Your task to perform on an android device: Set the phone to "Do not disturb". Image 0: 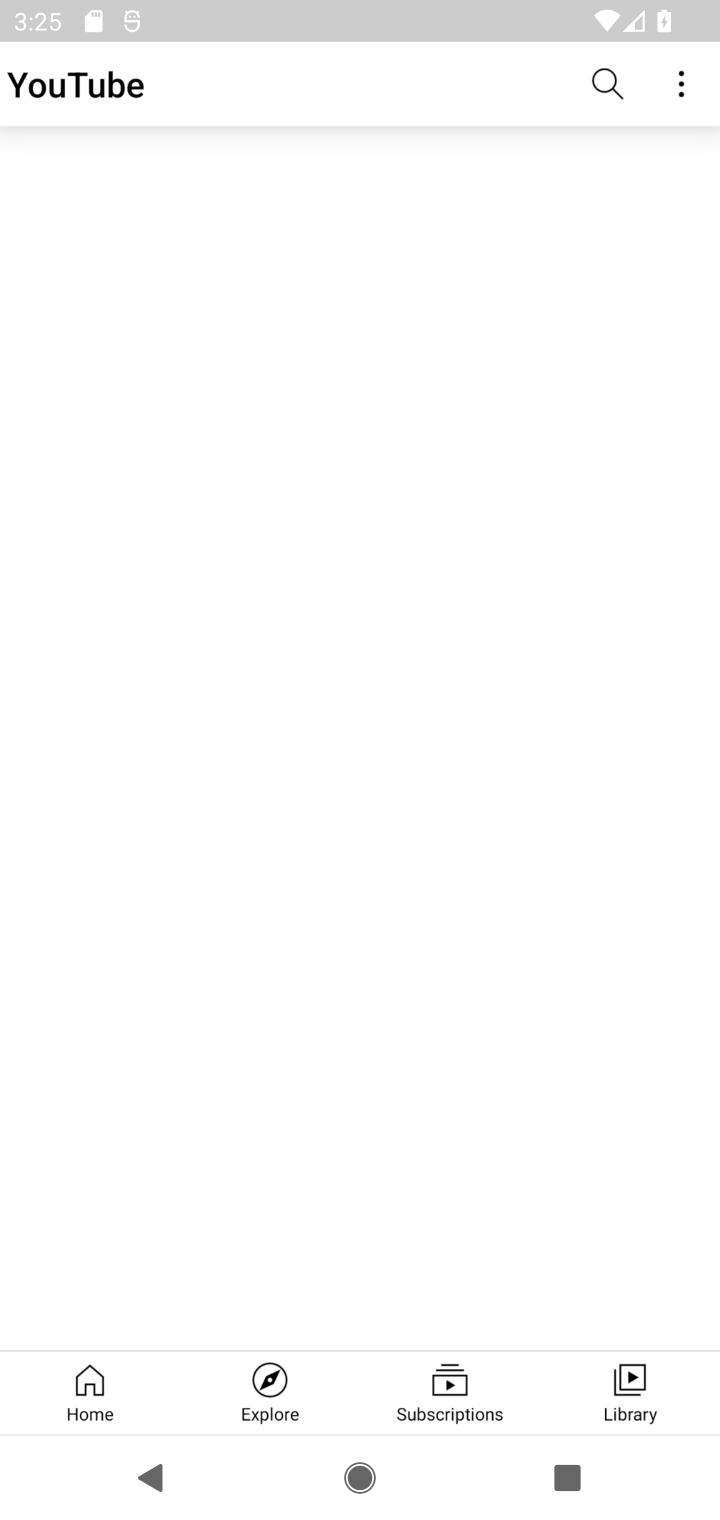
Step 0: press home button
Your task to perform on an android device: Set the phone to "Do not disturb". Image 1: 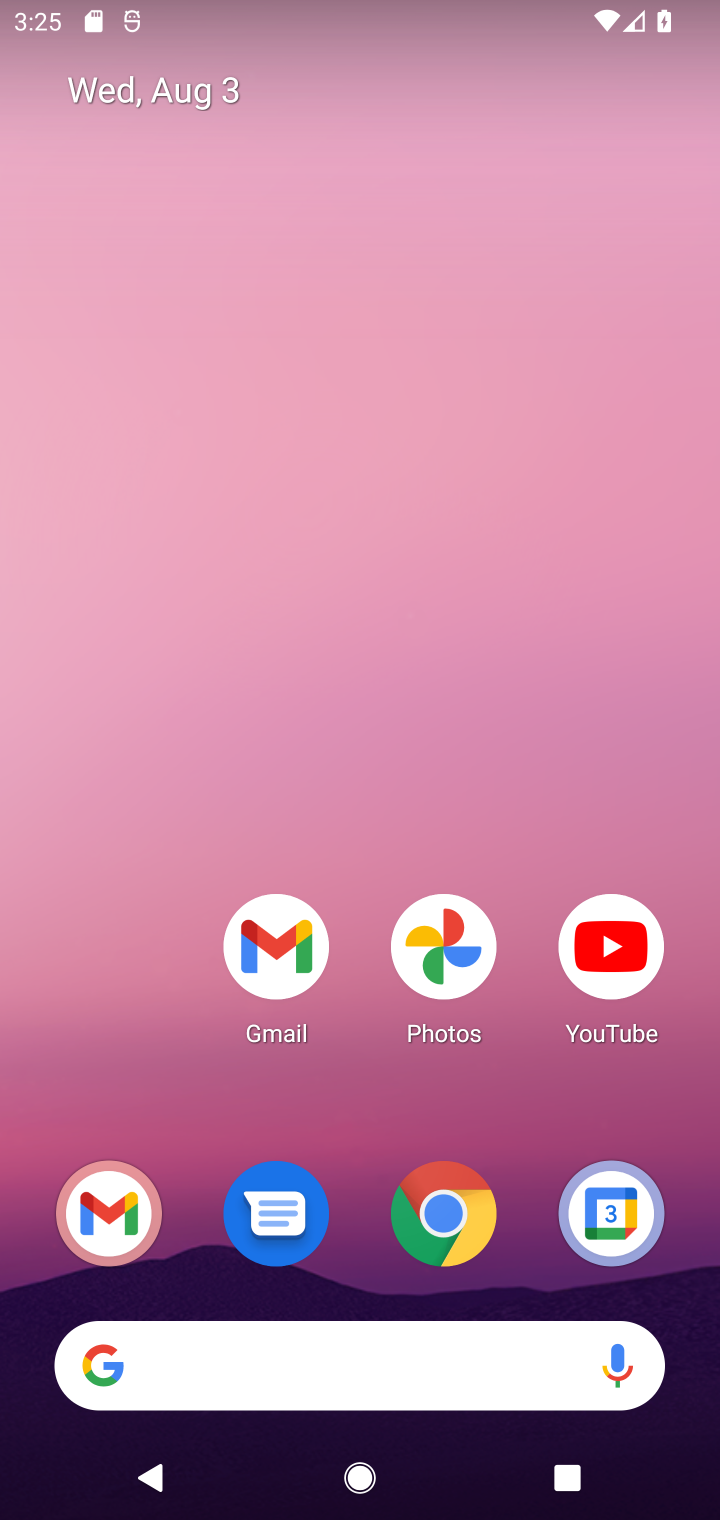
Step 1: drag from (351, 22) to (360, 1053)
Your task to perform on an android device: Set the phone to "Do not disturb". Image 2: 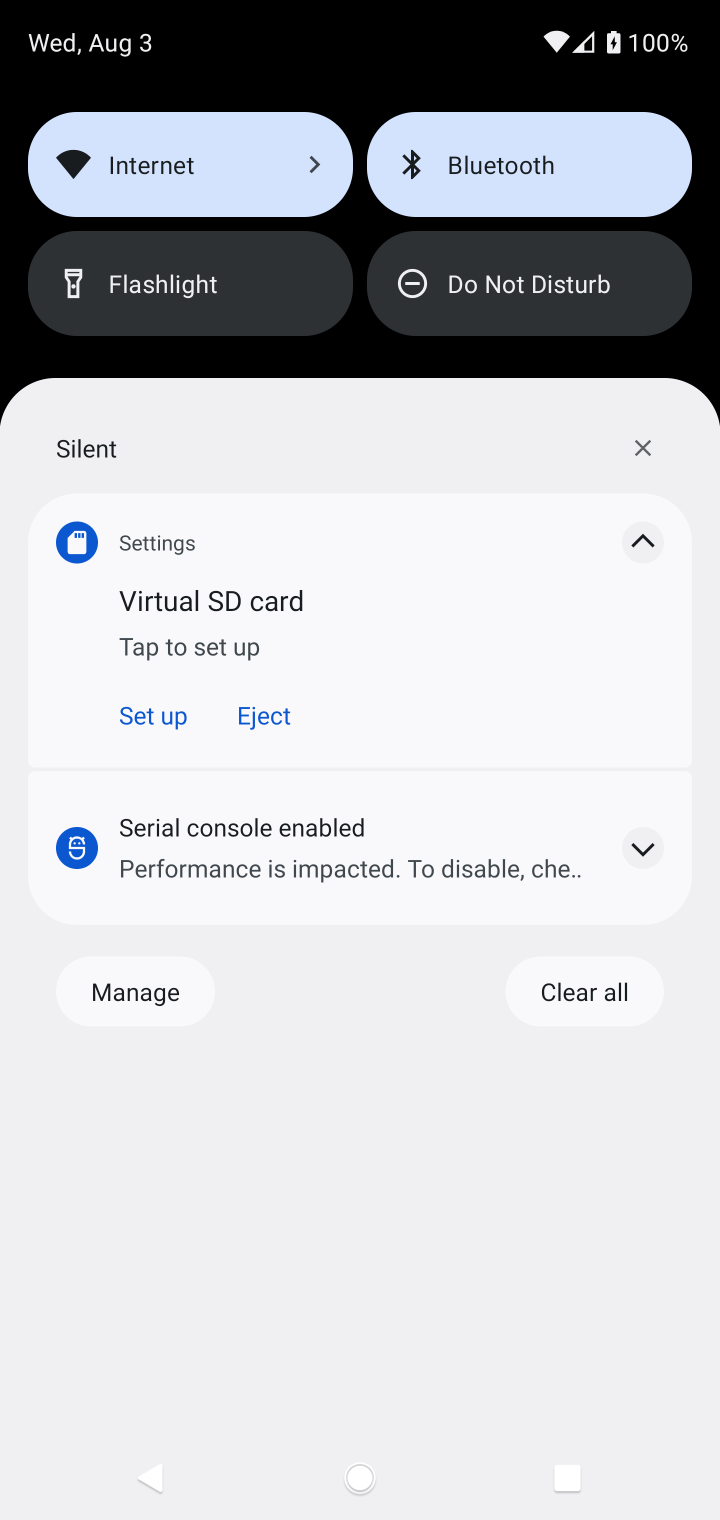
Step 2: click (538, 277)
Your task to perform on an android device: Set the phone to "Do not disturb". Image 3: 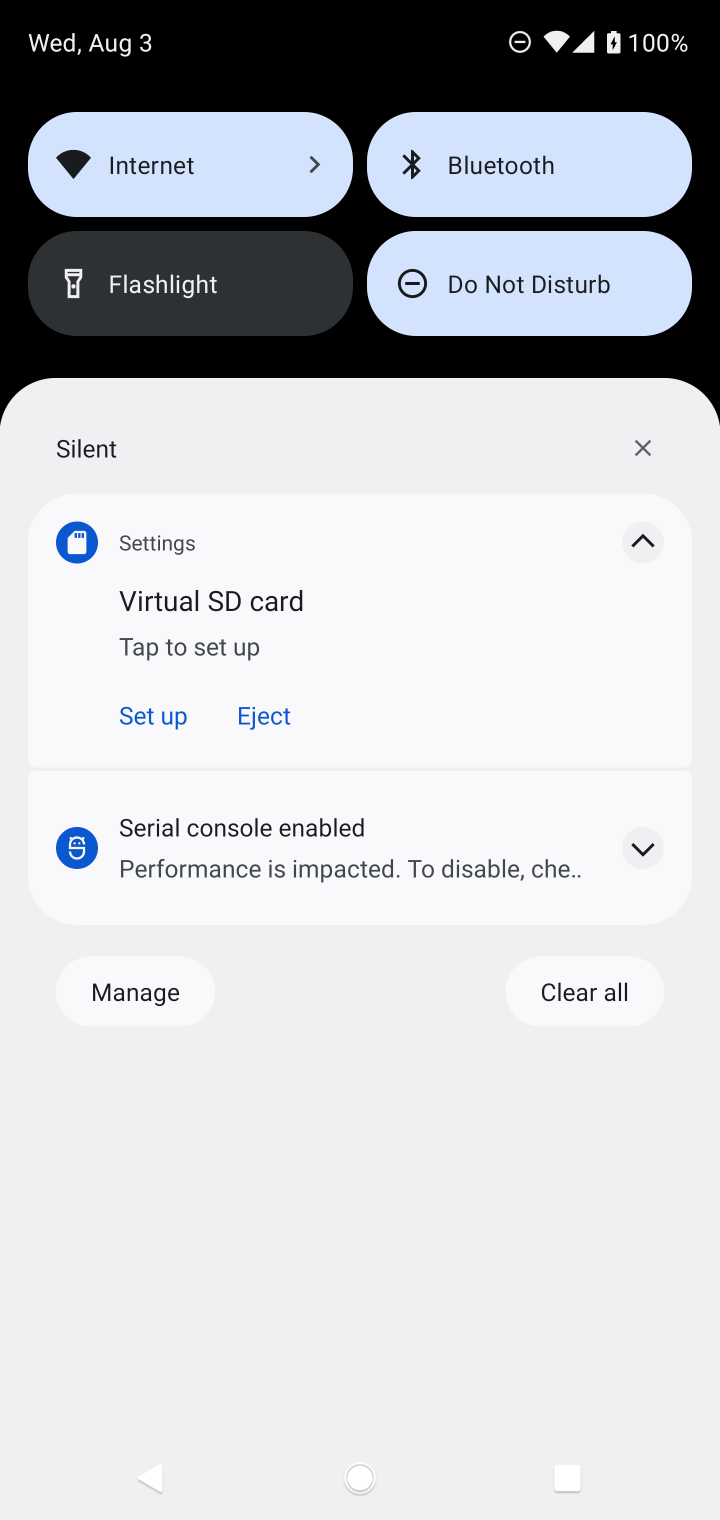
Step 3: task complete